Your task to perform on an android device: open device folders in google photos Image 0: 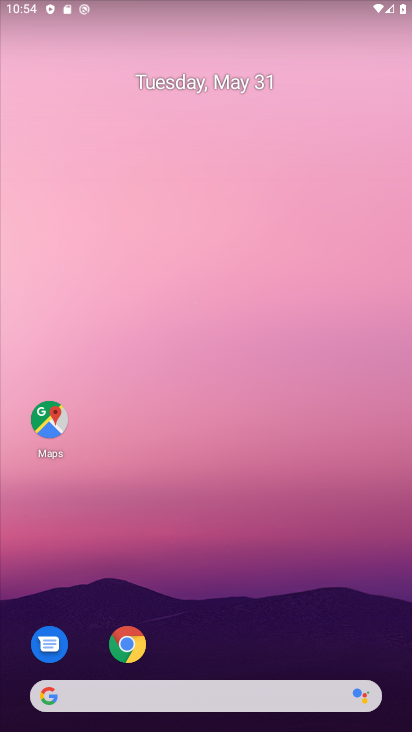
Step 0: drag from (187, 562) to (253, 187)
Your task to perform on an android device: open device folders in google photos Image 1: 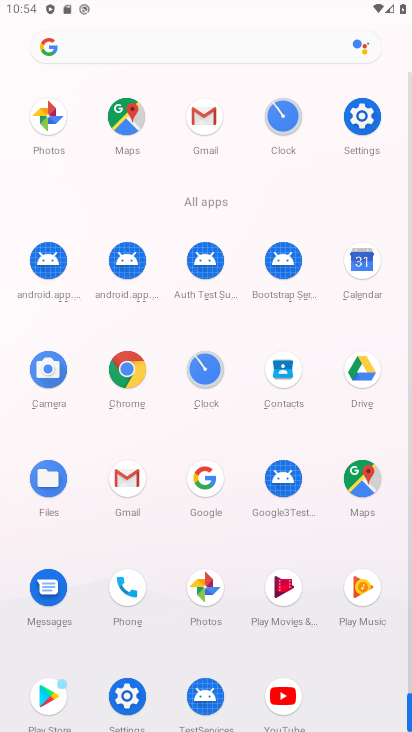
Step 1: click (362, 108)
Your task to perform on an android device: open device folders in google photos Image 2: 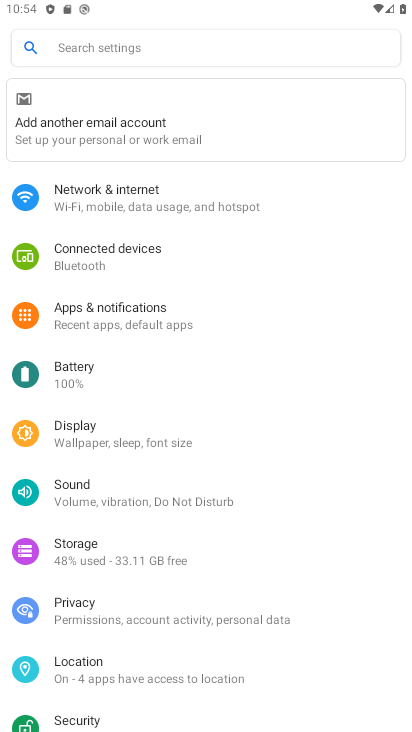
Step 2: drag from (147, 635) to (212, 141)
Your task to perform on an android device: open device folders in google photos Image 3: 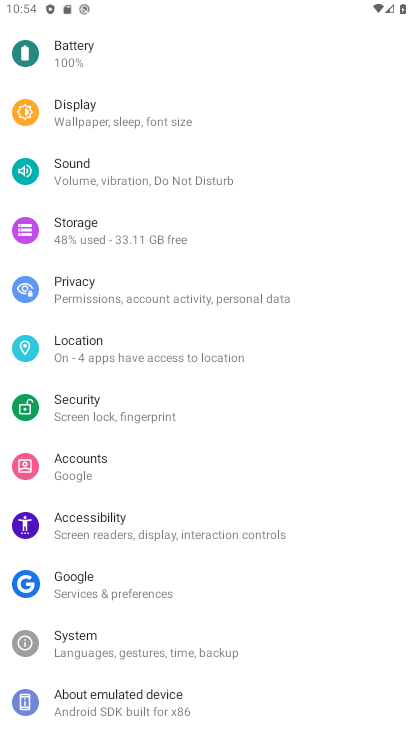
Step 3: click (88, 533)
Your task to perform on an android device: open device folders in google photos Image 4: 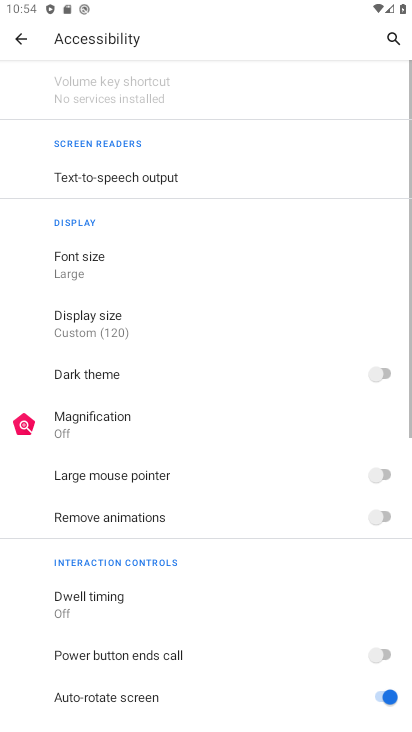
Step 4: press back button
Your task to perform on an android device: open device folders in google photos Image 5: 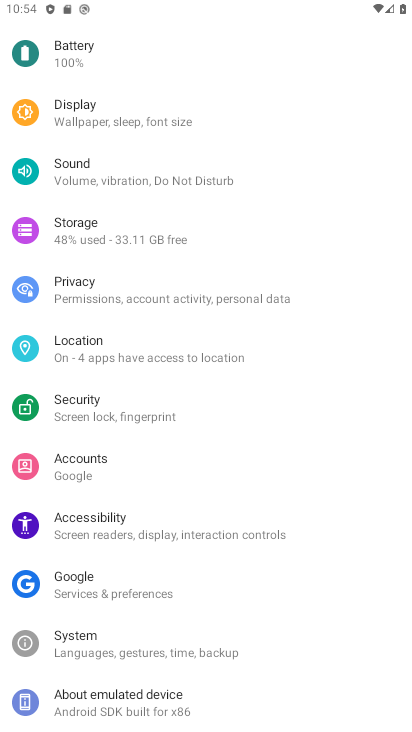
Step 5: press back button
Your task to perform on an android device: open device folders in google photos Image 6: 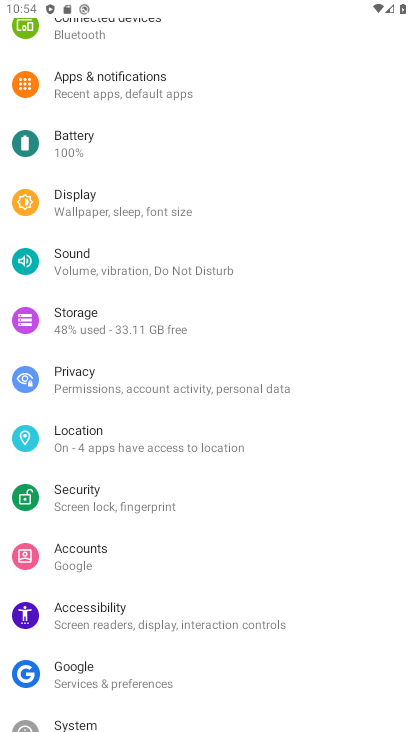
Step 6: press back button
Your task to perform on an android device: open device folders in google photos Image 7: 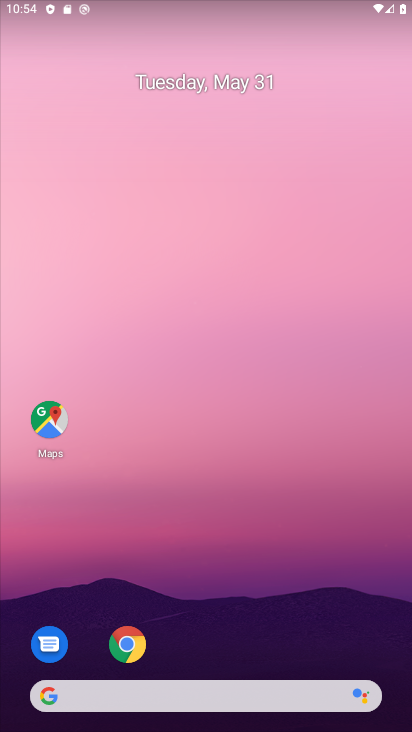
Step 7: drag from (185, 630) to (233, 155)
Your task to perform on an android device: open device folders in google photos Image 8: 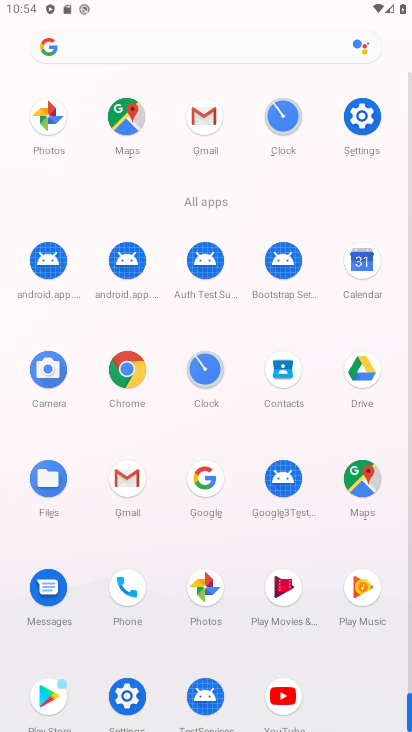
Step 8: click (200, 589)
Your task to perform on an android device: open device folders in google photos Image 9: 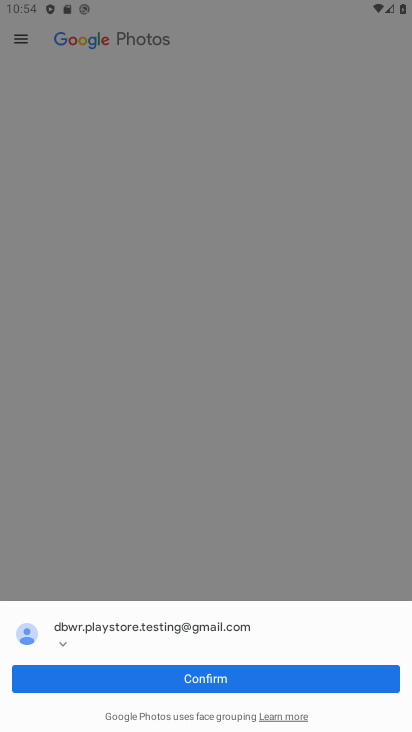
Step 9: click (20, 43)
Your task to perform on an android device: open device folders in google photos Image 10: 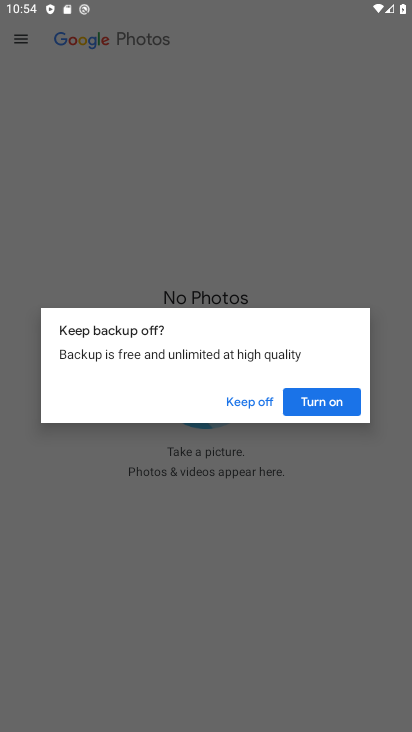
Step 10: click (314, 404)
Your task to perform on an android device: open device folders in google photos Image 11: 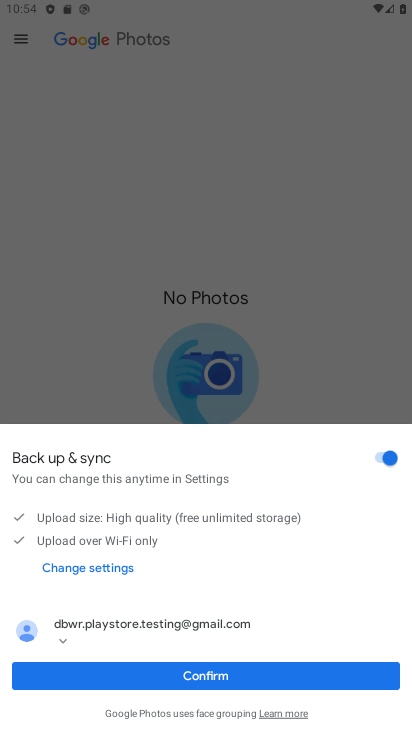
Step 11: click (199, 671)
Your task to perform on an android device: open device folders in google photos Image 12: 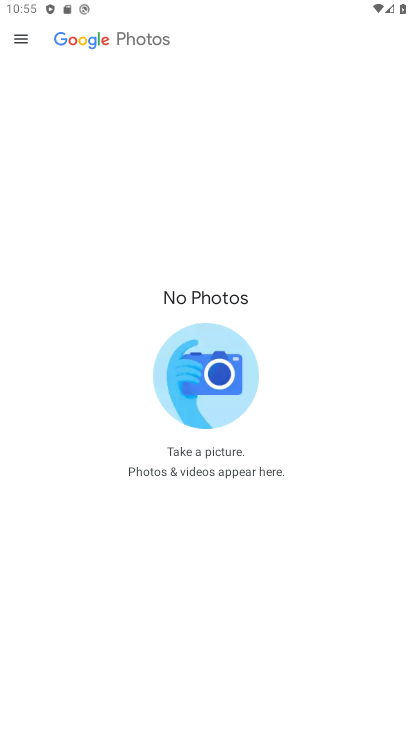
Step 12: click (20, 41)
Your task to perform on an android device: open device folders in google photos Image 13: 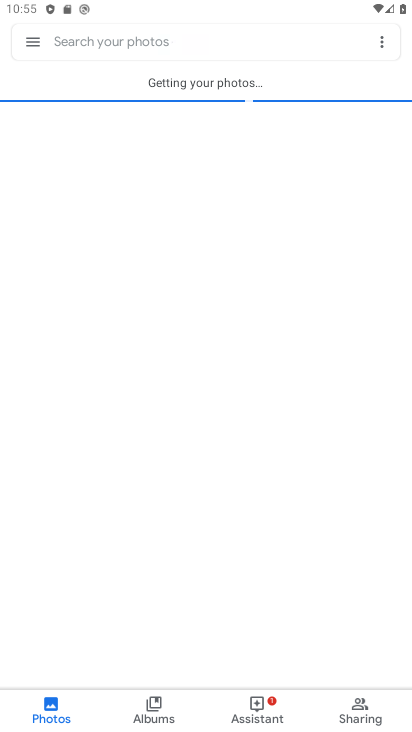
Step 13: click (33, 35)
Your task to perform on an android device: open device folders in google photos Image 14: 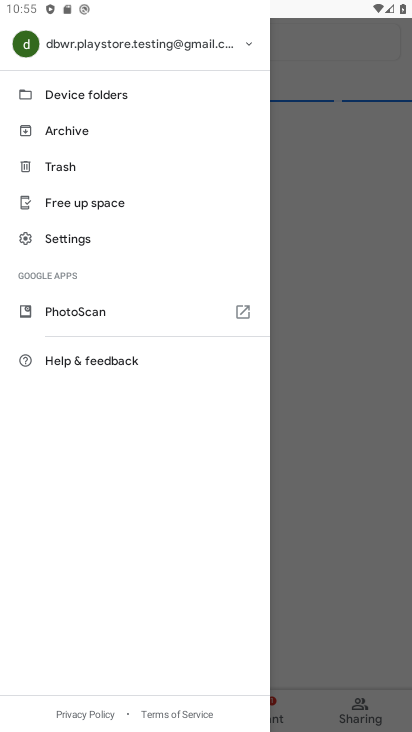
Step 14: click (68, 108)
Your task to perform on an android device: open device folders in google photos Image 15: 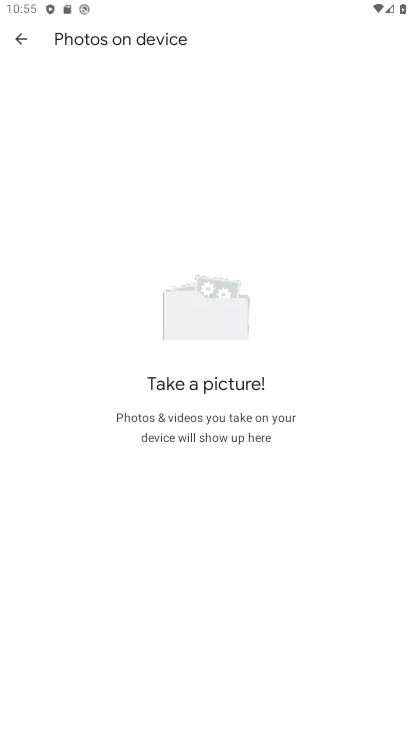
Step 15: task complete